Your task to perform on an android device: delete browsing data in the chrome app Image 0: 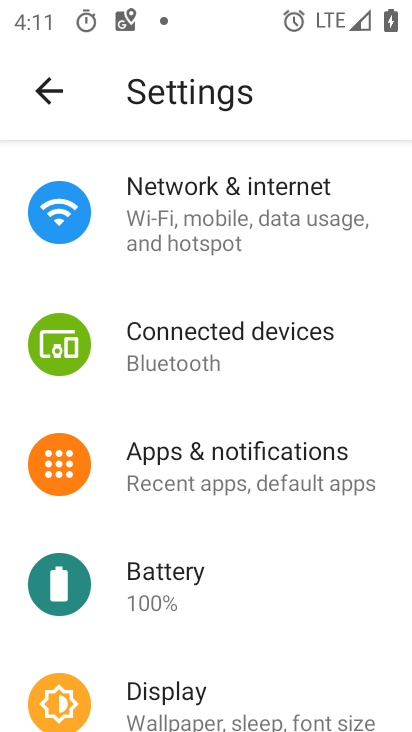
Step 0: click (56, 93)
Your task to perform on an android device: delete browsing data in the chrome app Image 1: 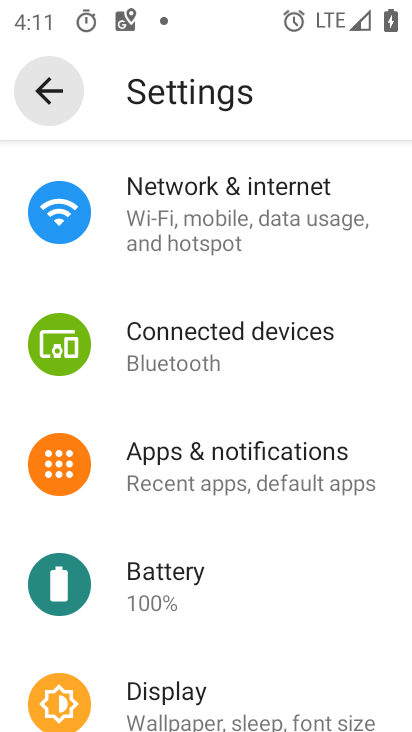
Step 1: click (50, 95)
Your task to perform on an android device: delete browsing data in the chrome app Image 2: 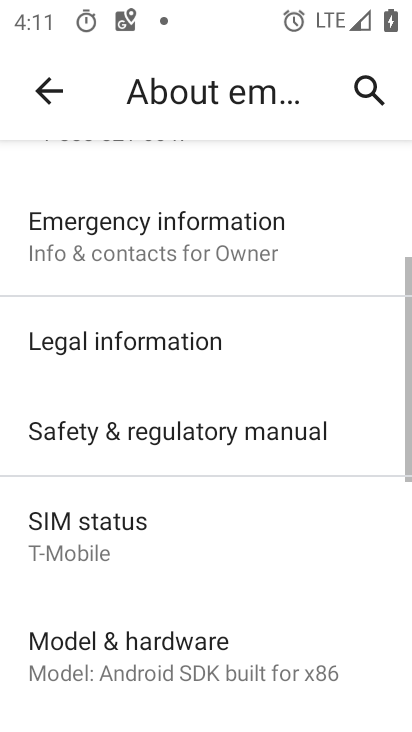
Step 2: press home button
Your task to perform on an android device: delete browsing data in the chrome app Image 3: 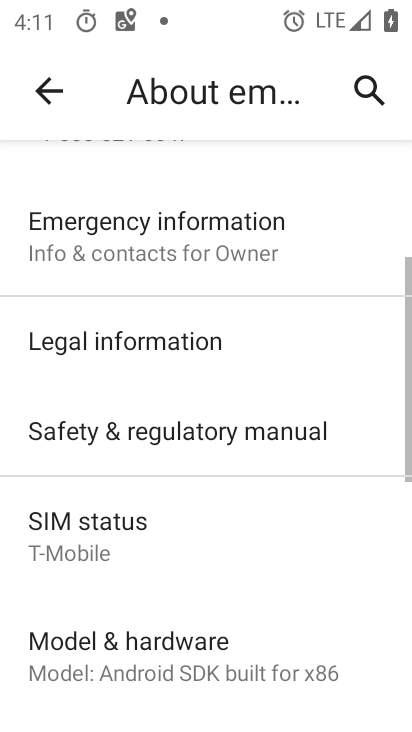
Step 3: press home button
Your task to perform on an android device: delete browsing data in the chrome app Image 4: 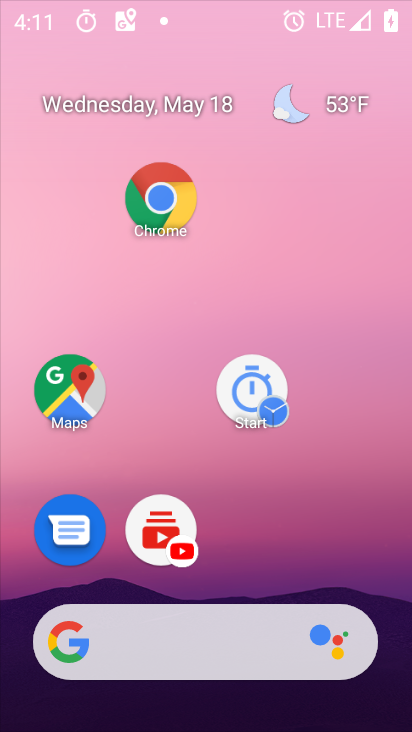
Step 4: press home button
Your task to perform on an android device: delete browsing data in the chrome app Image 5: 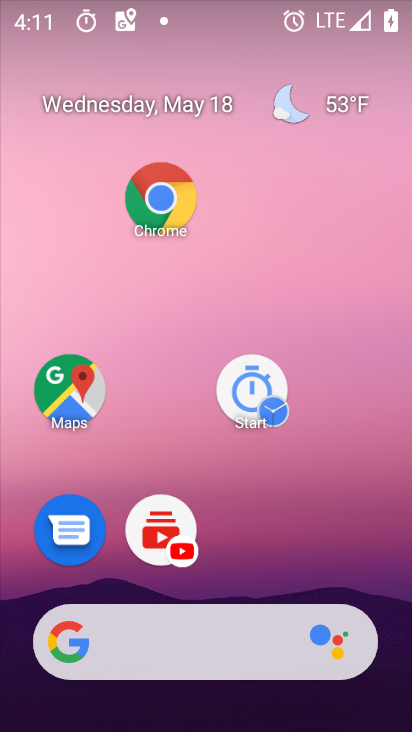
Step 5: drag from (262, 564) to (159, 0)
Your task to perform on an android device: delete browsing data in the chrome app Image 6: 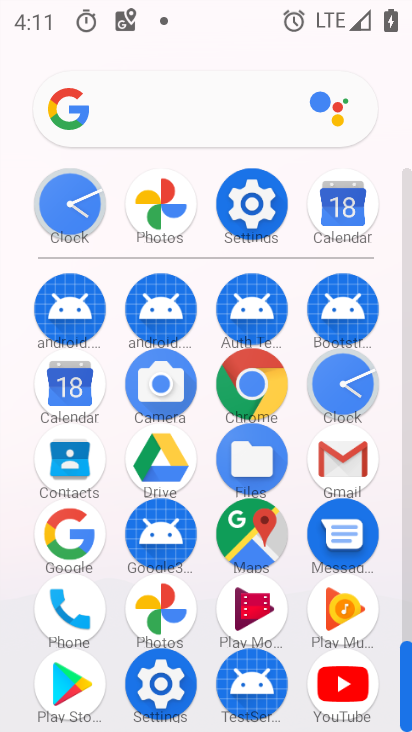
Step 6: click (254, 379)
Your task to perform on an android device: delete browsing data in the chrome app Image 7: 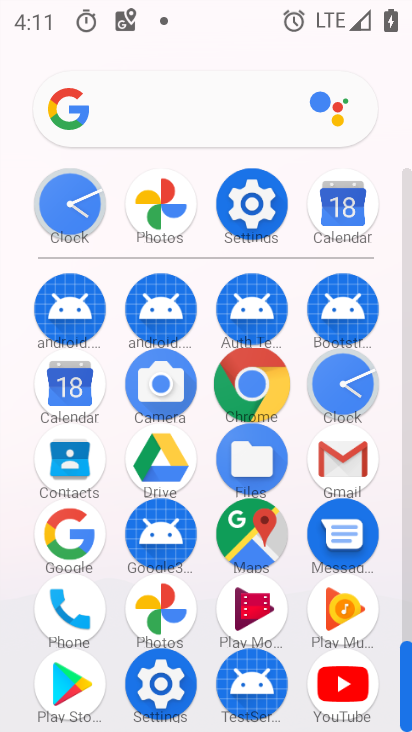
Step 7: click (254, 380)
Your task to perform on an android device: delete browsing data in the chrome app Image 8: 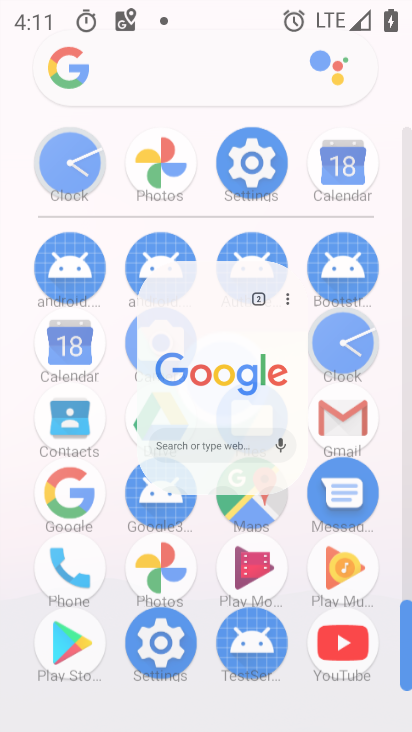
Step 8: click (254, 381)
Your task to perform on an android device: delete browsing data in the chrome app Image 9: 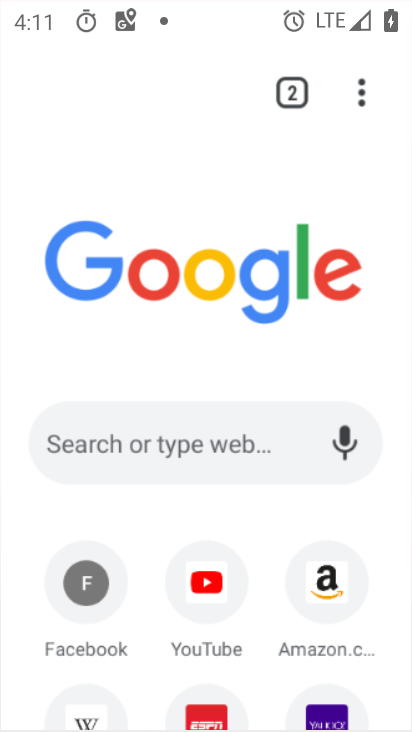
Step 9: click (261, 373)
Your task to perform on an android device: delete browsing data in the chrome app Image 10: 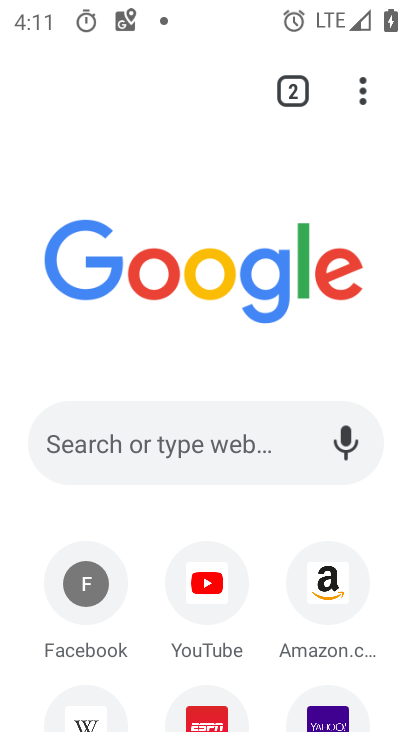
Step 10: drag from (359, 86) to (69, 505)
Your task to perform on an android device: delete browsing data in the chrome app Image 11: 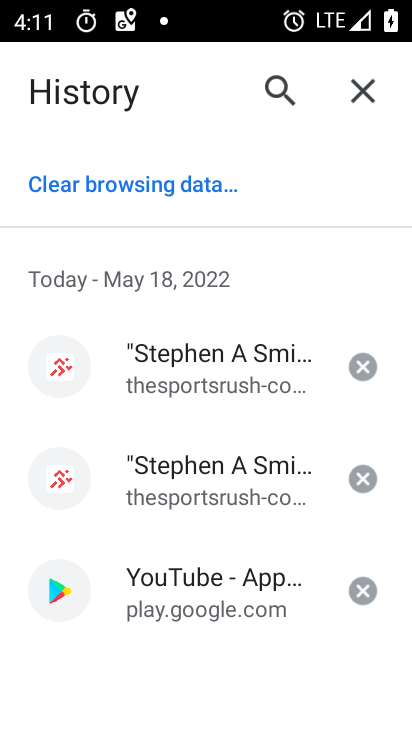
Step 11: click (145, 185)
Your task to perform on an android device: delete browsing data in the chrome app Image 12: 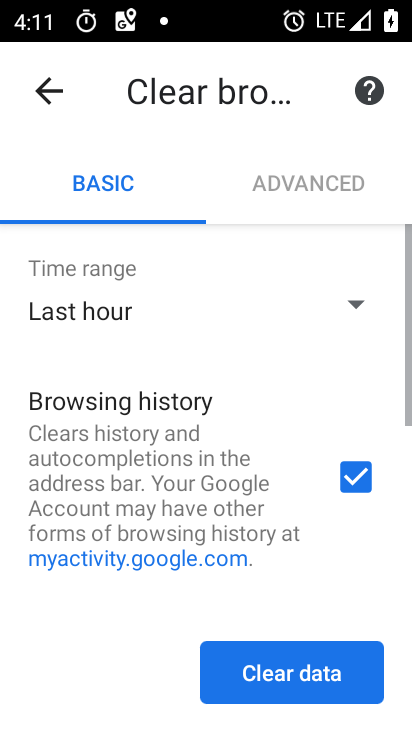
Step 12: click (287, 679)
Your task to perform on an android device: delete browsing data in the chrome app Image 13: 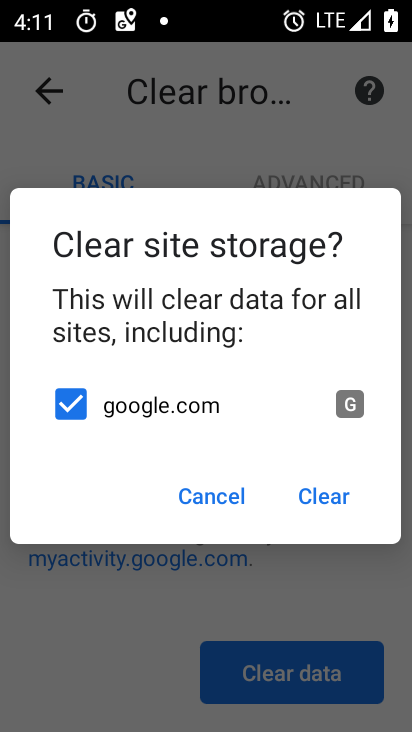
Step 13: click (303, 499)
Your task to perform on an android device: delete browsing data in the chrome app Image 14: 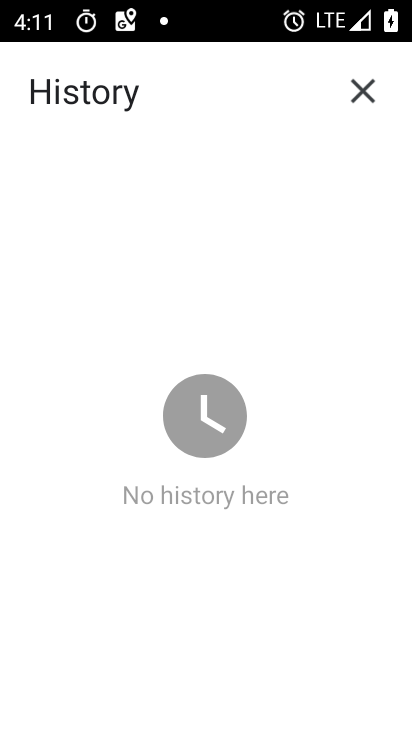
Step 14: task complete